Your task to perform on an android device: search for starred emails in the gmail app Image 0: 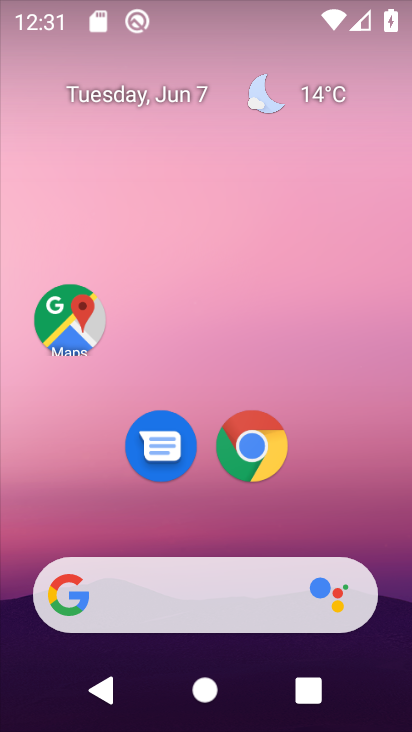
Step 0: drag from (138, 523) to (225, 37)
Your task to perform on an android device: search for starred emails in the gmail app Image 1: 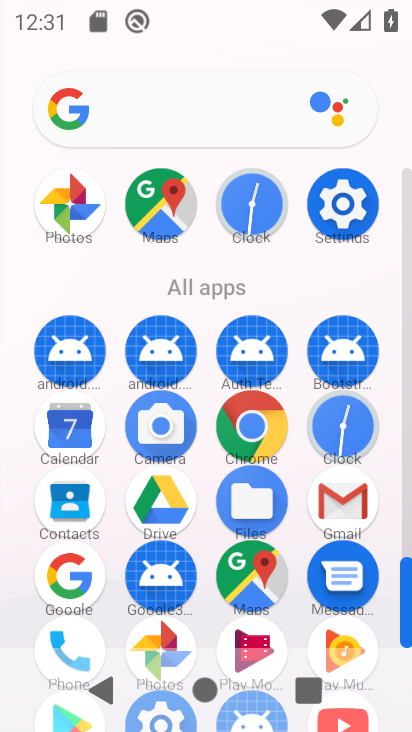
Step 1: click (340, 505)
Your task to perform on an android device: search for starred emails in the gmail app Image 2: 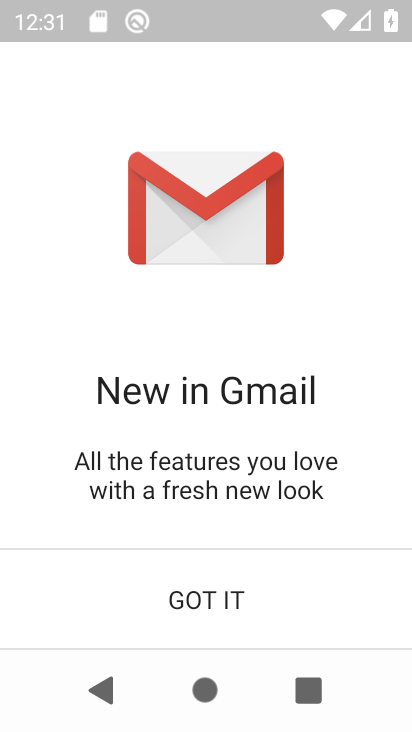
Step 2: click (197, 594)
Your task to perform on an android device: search for starred emails in the gmail app Image 3: 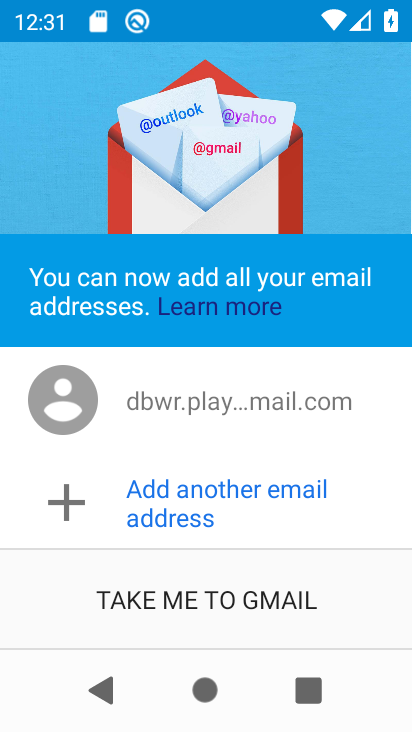
Step 3: click (157, 587)
Your task to perform on an android device: search for starred emails in the gmail app Image 4: 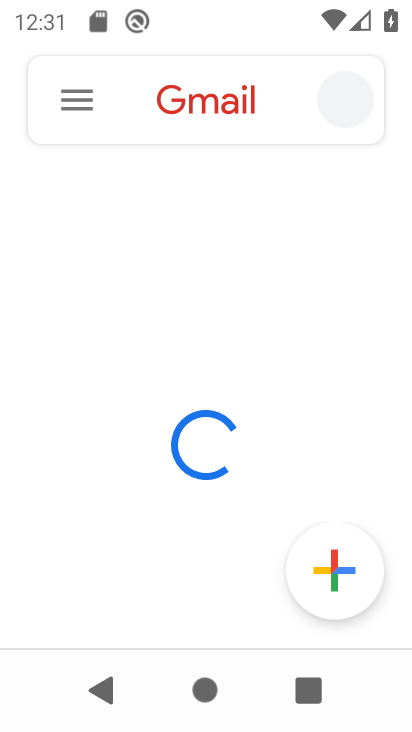
Step 4: click (66, 107)
Your task to perform on an android device: search for starred emails in the gmail app Image 5: 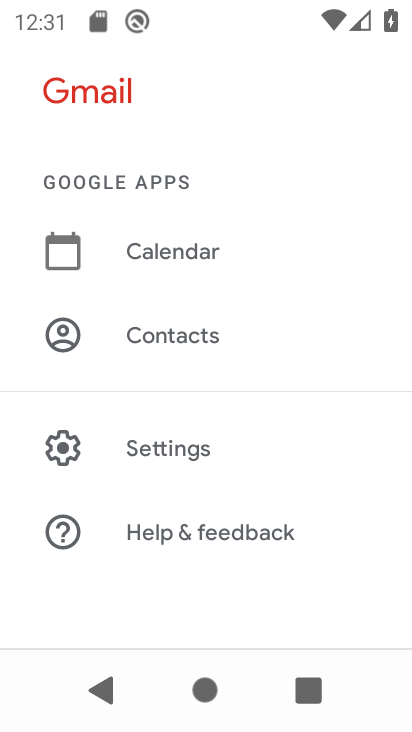
Step 5: drag from (155, 229) to (236, 95)
Your task to perform on an android device: search for starred emails in the gmail app Image 6: 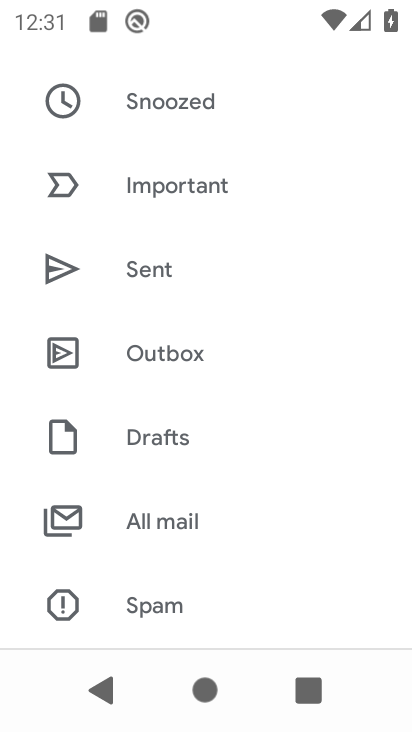
Step 6: drag from (161, 517) to (244, 98)
Your task to perform on an android device: search for starred emails in the gmail app Image 7: 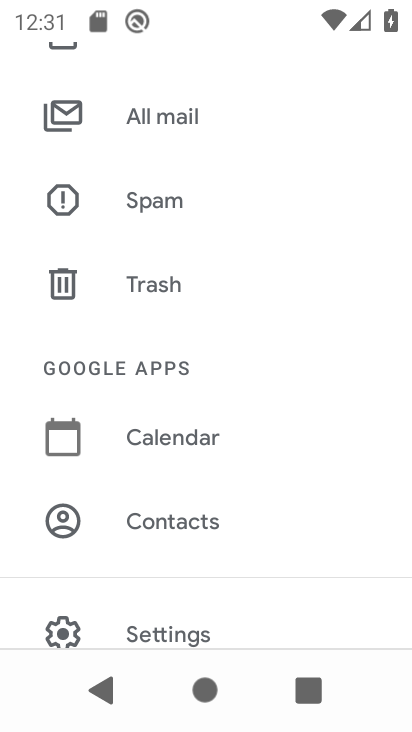
Step 7: drag from (207, 588) to (161, 636)
Your task to perform on an android device: search for starred emails in the gmail app Image 8: 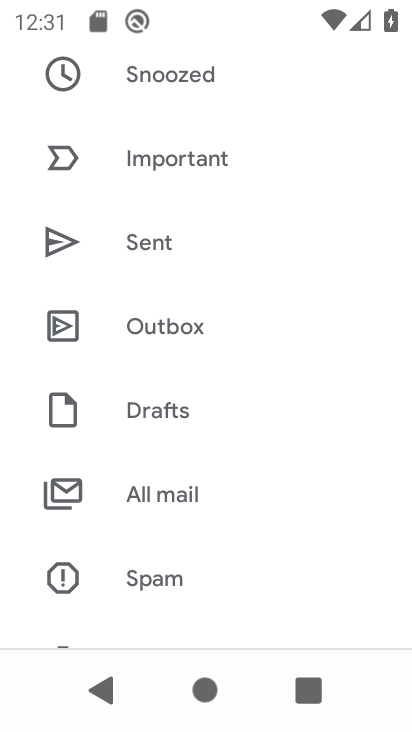
Step 8: drag from (185, 201) to (194, 644)
Your task to perform on an android device: search for starred emails in the gmail app Image 9: 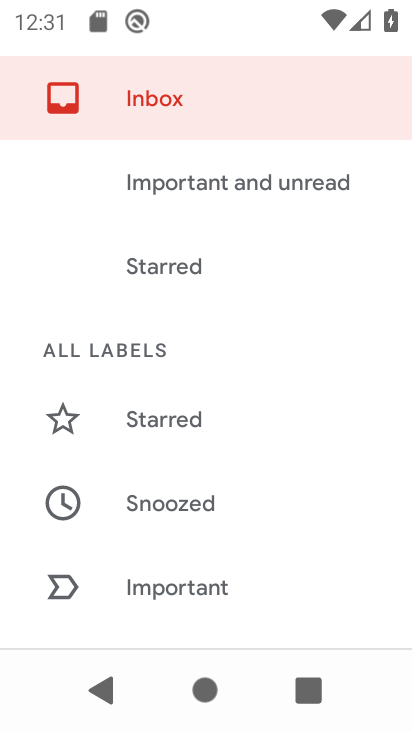
Step 9: click (150, 418)
Your task to perform on an android device: search for starred emails in the gmail app Image 10: 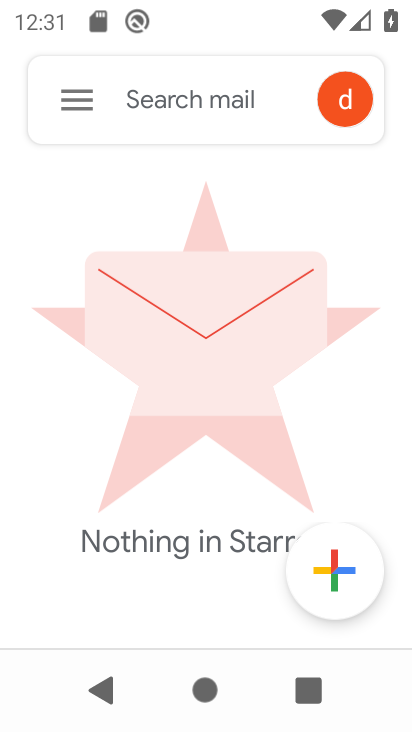
Step 10: task complete